Your task to perform on an android device: install app "Google Docs" Image 0: 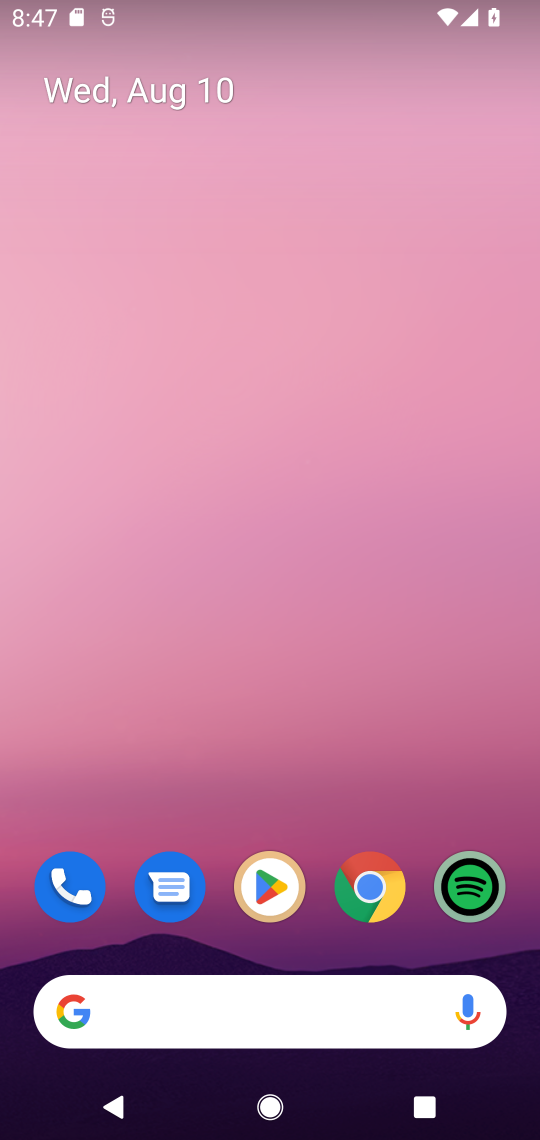
Step 0: drag from (303, 961) to (291, 79)
Your task to perform on an android device: install app "Google Docs" Image 1: 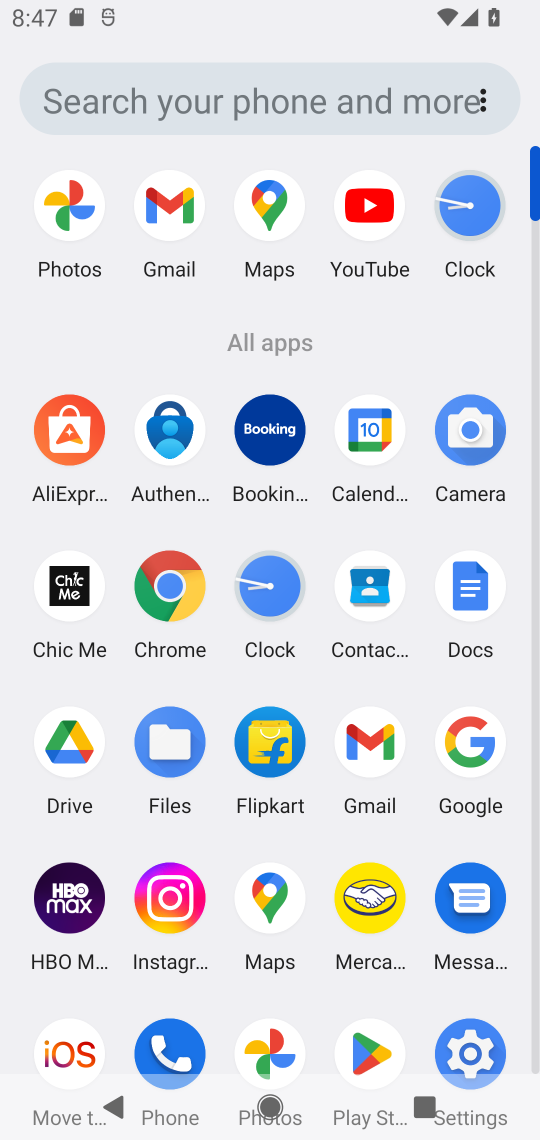
Step 1: click (359, 121)
Your task to perform on an android device: install app "Google Docs" Image 2: 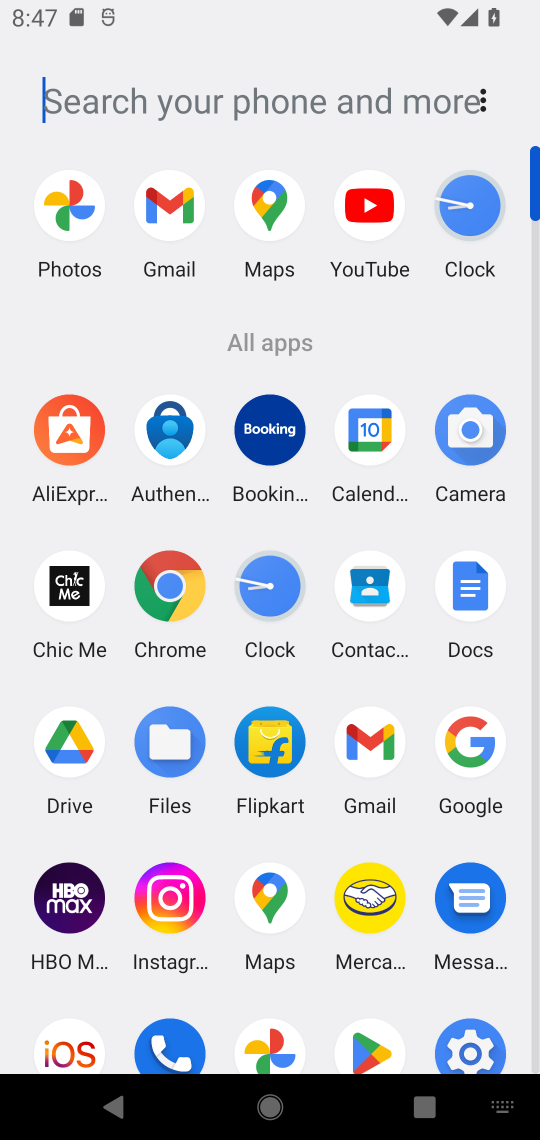
Step 2: click (362, 1038)
Your task to perform on an android device: install app "Google Docs" Image 3: 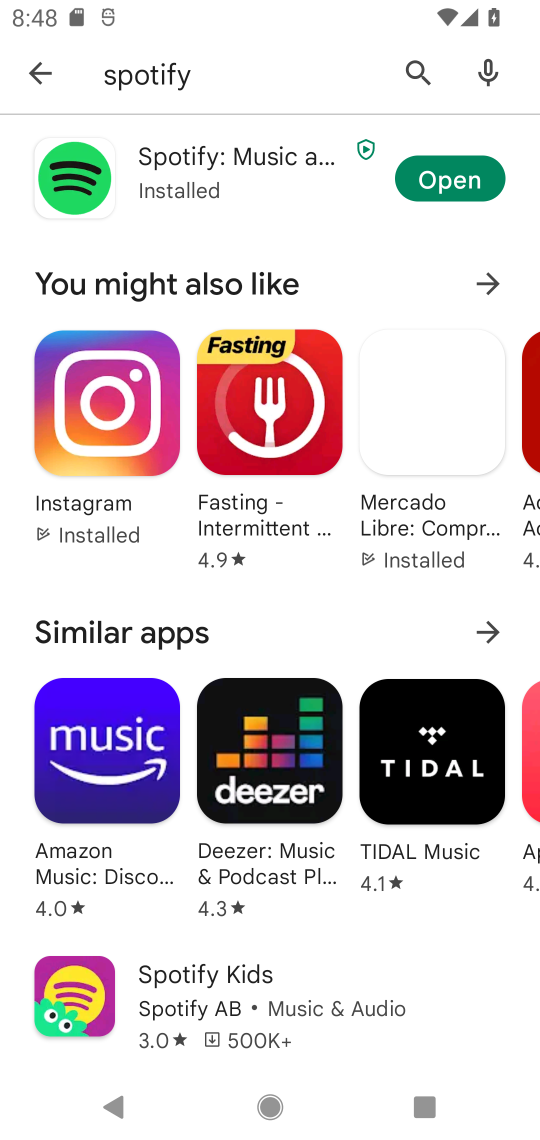
Step 3: click (414, 50)
Your task to perform on an android device: install app "Google Docs" Image 4: 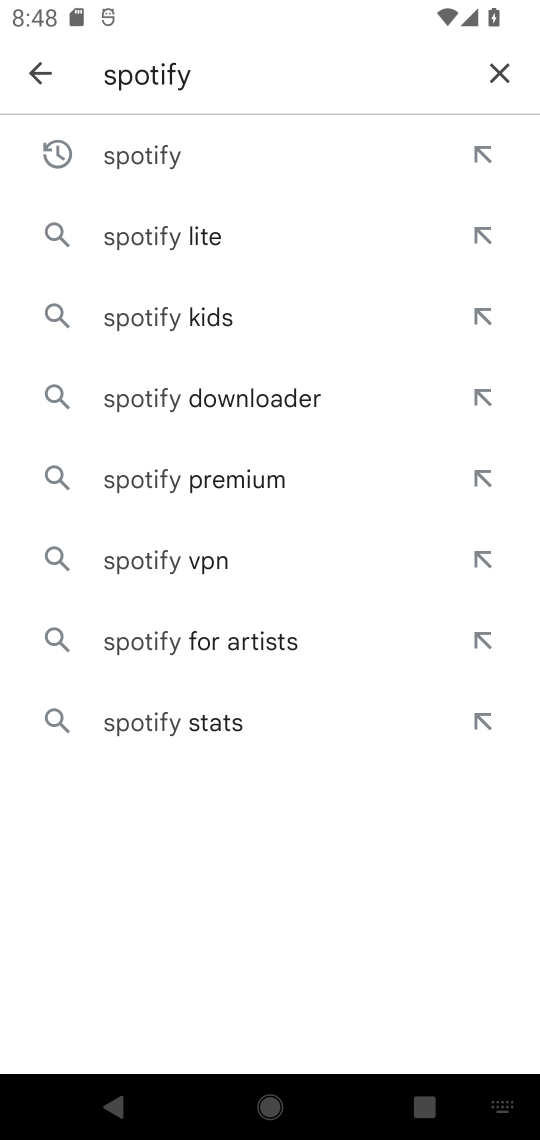
Step 4: click (513, 76)
Your task to perform on an android device: install app "Google Docs" Image 5: 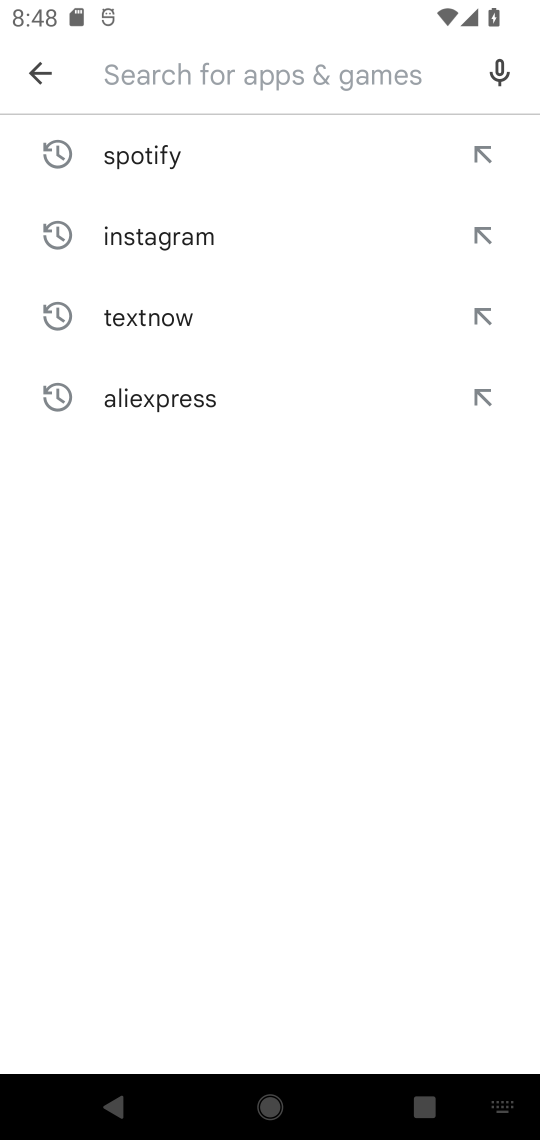
Step 5: type "google doc"
Your task to perform on an android device: install app "Google Docs" Image 6: 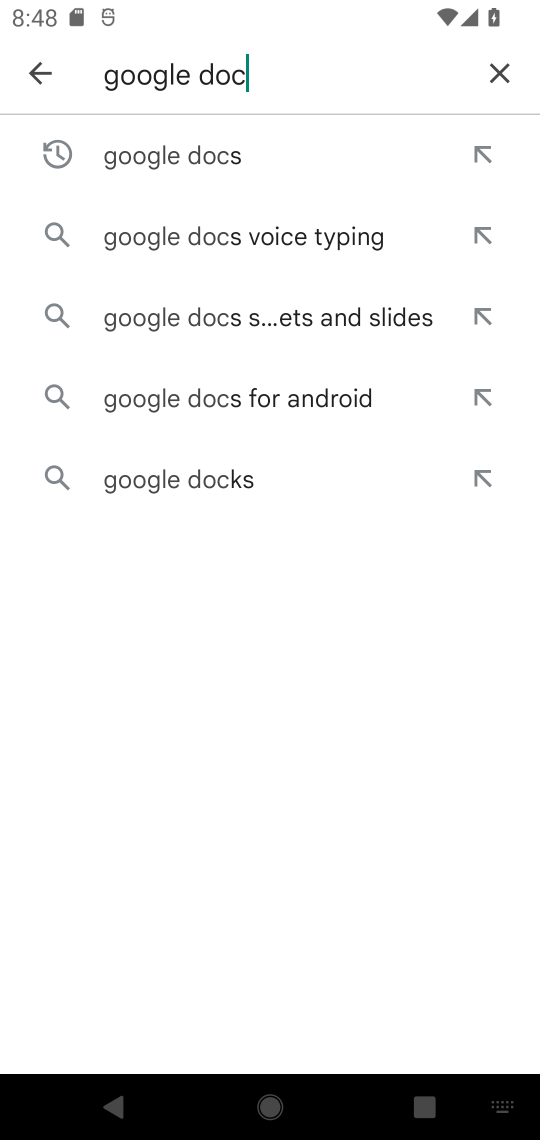
Step 6: click (274, 139)
Your task to perform on an android device: install app "Google Docs" Image 7: 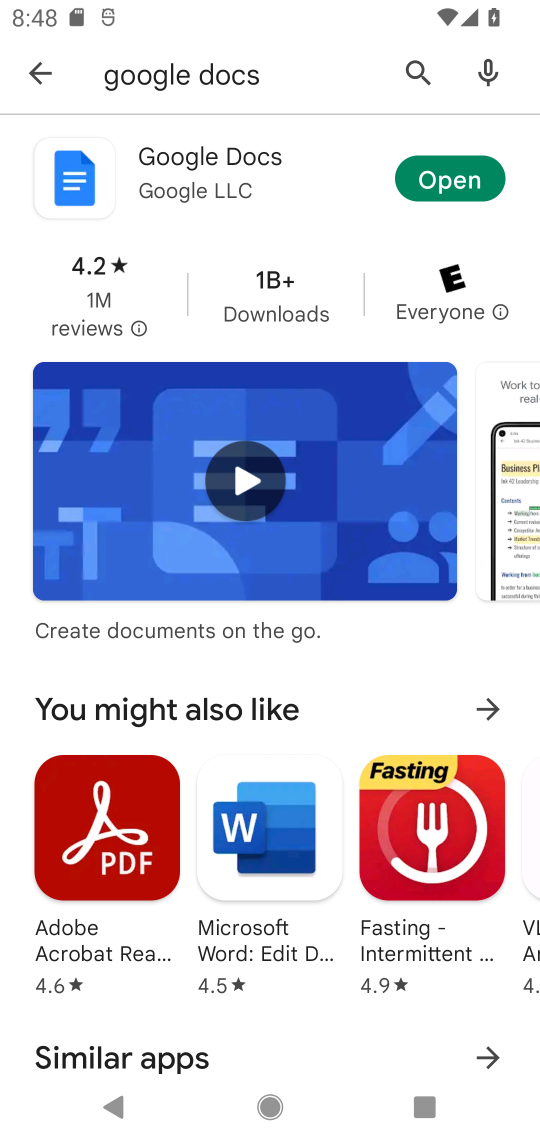
Step 7: click (435, 195)
Your task to perform on an android device: install app "Google Docs" Image 8: 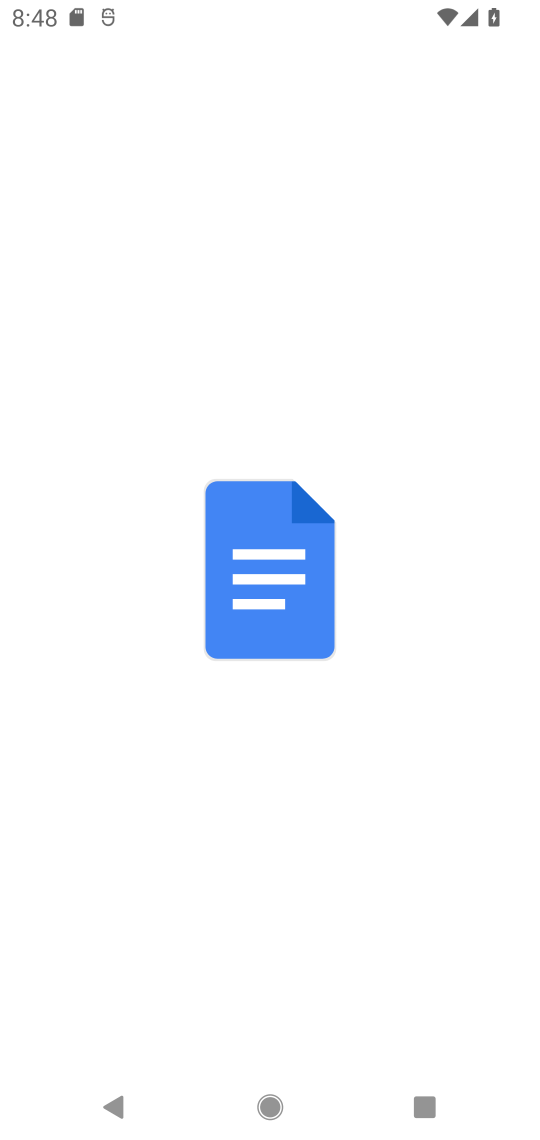
Step 8: task complete